Your task to perform on an android device: Open wifi settings Image 0: 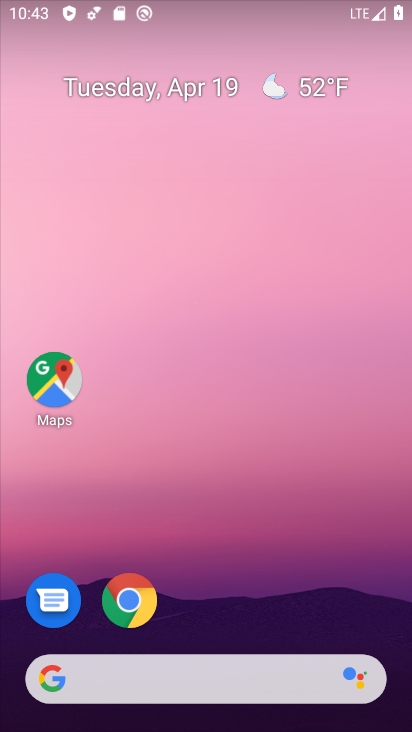
Step 0: drag from (206, 644) to (308, 1)
Your task to perform on an android device: Open wifi settings Image 1: 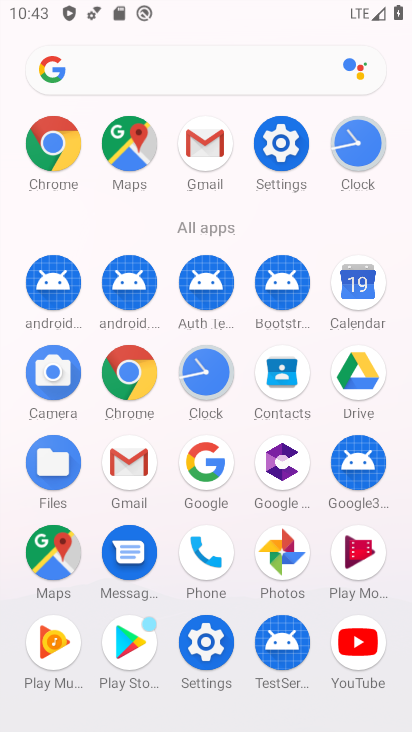
Step 1: click (200, 660)
Your task to perform on an android device: Open wifi settings Image 2: 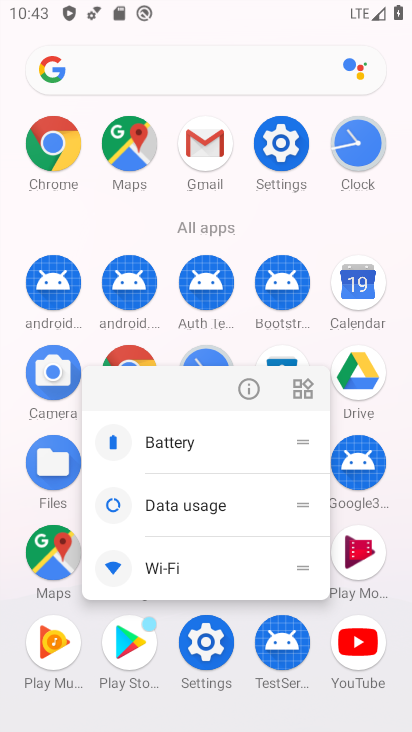
Step 2: click (206, 636)
Your task to perform on an android device: Open wifi settings Image 3: 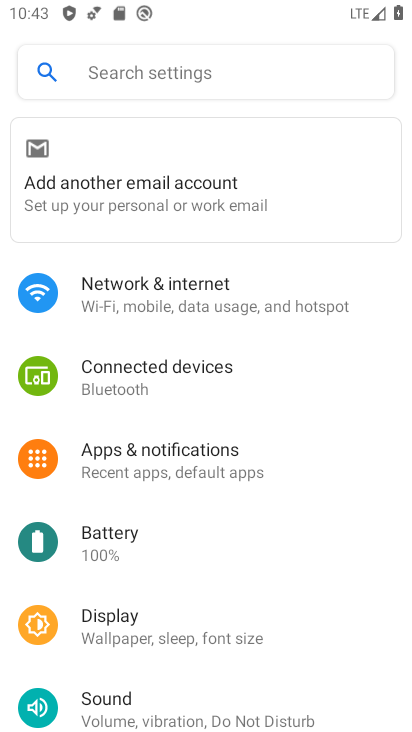
Step 3: click (172, 316)
Your task to perform on an android device: Open wifi settings Image 4: 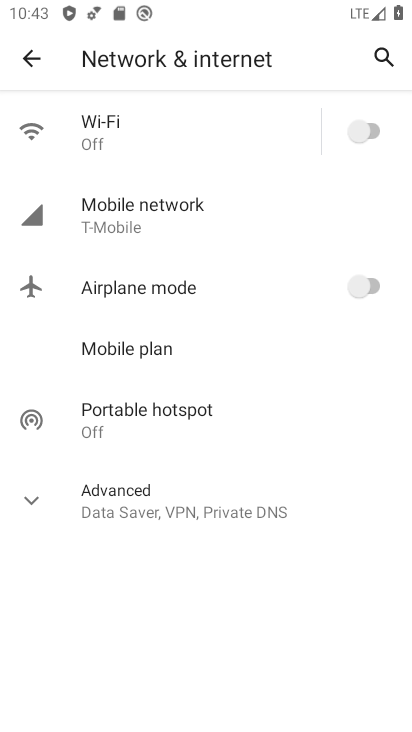
Step 4: click (146, 146)
Your task to perform on an android device: Open wifi settings Image 5: 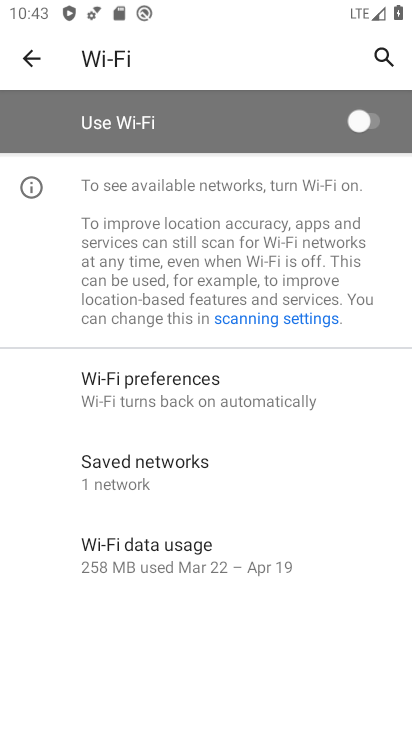
Step 5: task complete